Your task to perform on an android device: add a label to a message in the gmail app Image 0: 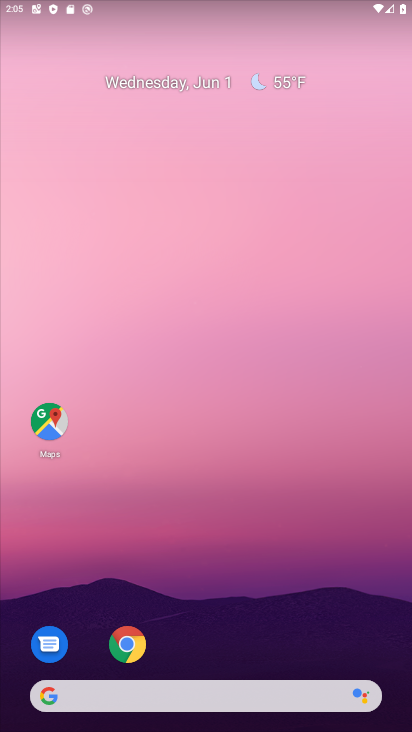
Step 0: drag from (219, 612) to (224, 219)
Your task to perform on an android device: add a label to a message in the gmail app Image 1: 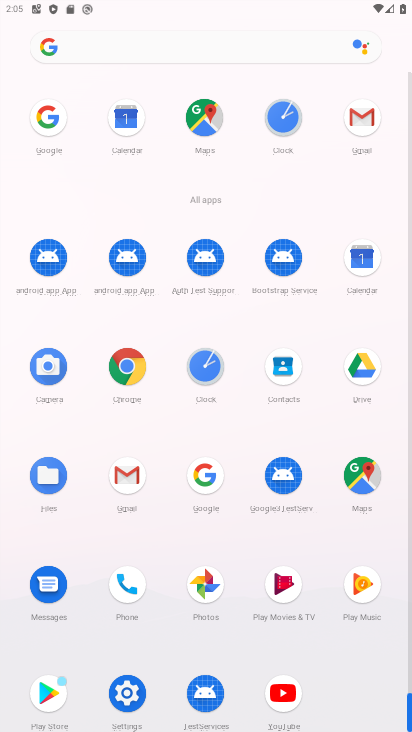
Step 1: click (127, 487)
Your task to perform on an android device: add a label to a message in the gmail app Image 2: 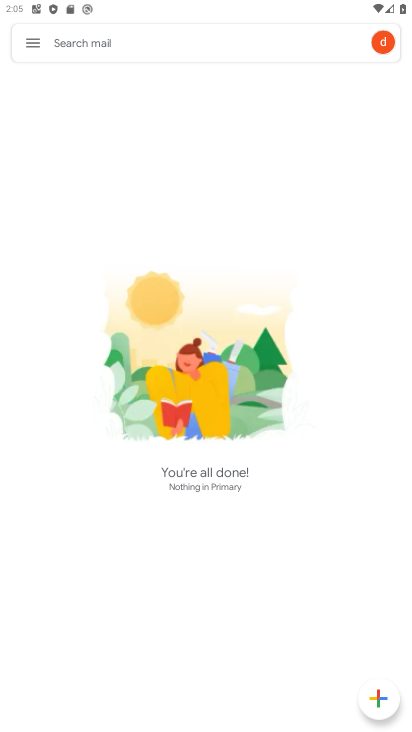
Step 2: click (23, 46)
Your task to perform on an android device: add a label to a message in the gmail app Image 3: 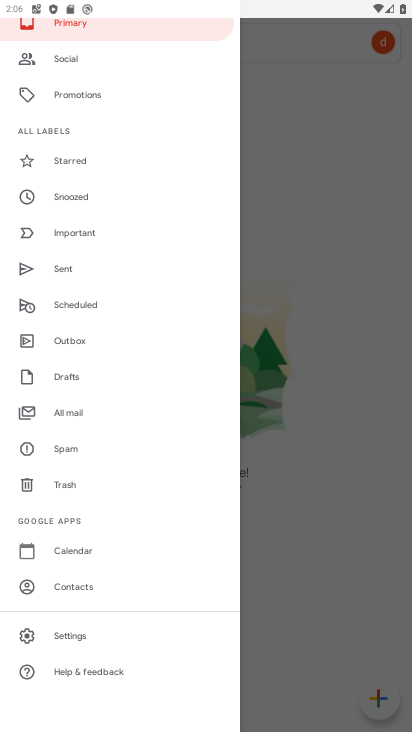
Step 3: click (76, 416)
Your task to perform on an android device: add a label to a message in the gmail app Image 4: 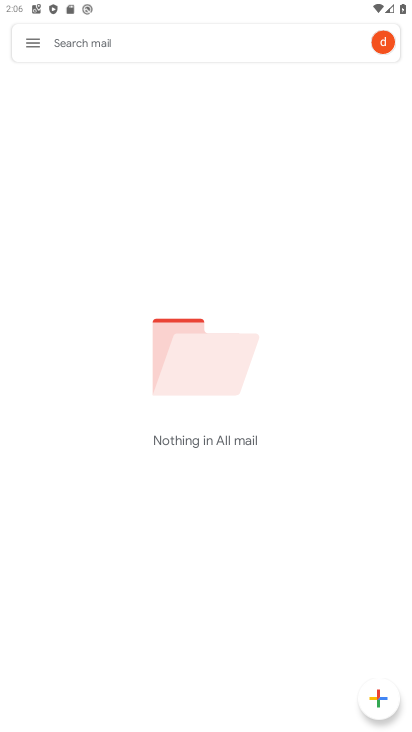
Step 4: task complete